Your task to perform on an android device: empty trash in google photos Image 0: 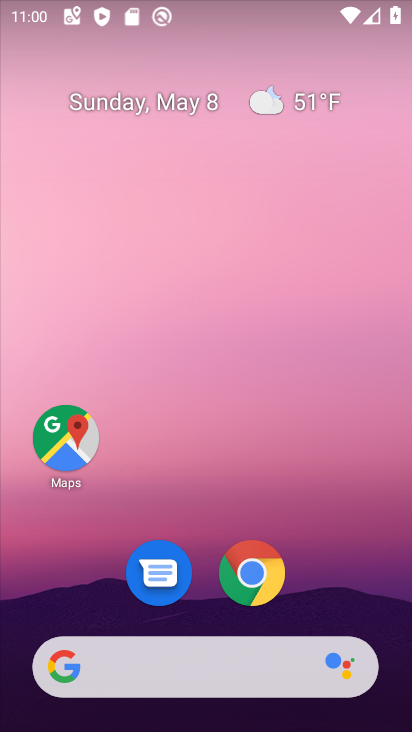
Step 0: press home button
Your task to perform on an android device: empty trash in google photos Image 1: 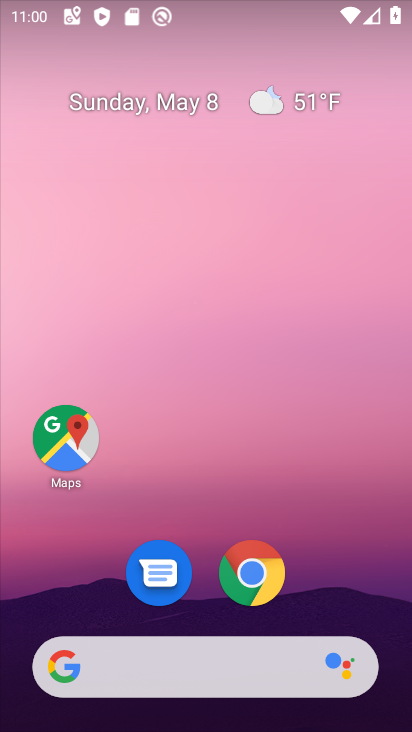
Step 1: drag from (214, 632) to (255, 41)
Your task to perform on an android device: empty trash in google photos Image 2: 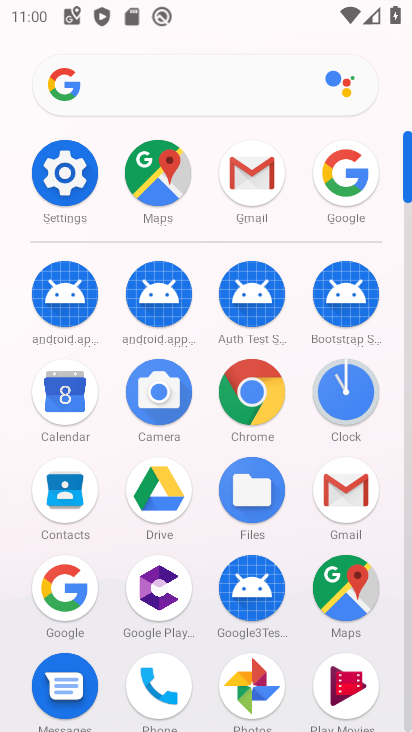
Step 2: click (253, 696)
Your task to perform on an android device: empty trash in google photos Image 3: 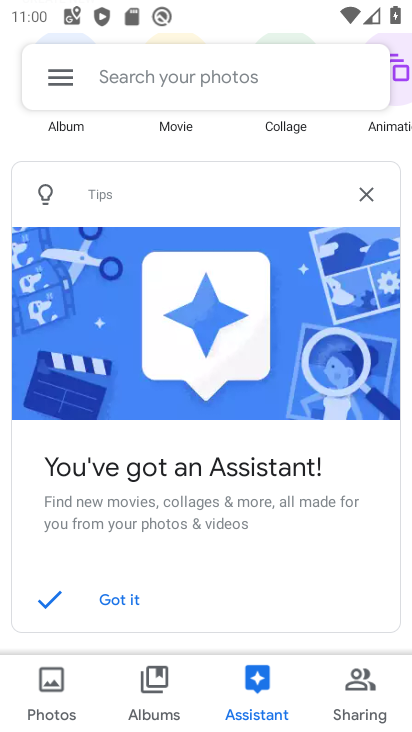
Step 3: click (58, 73)
Your task to perform on an android device: empty trash in google photos Image 4: 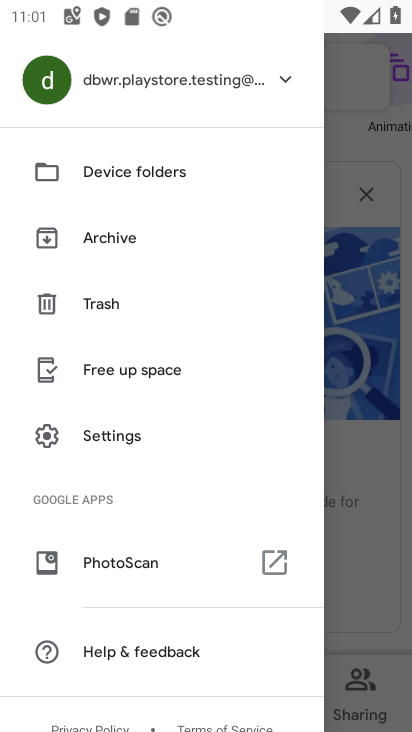
Step 4: click (94, 310)
Your task to perform on an android device: empty trash in google photos Image 5: 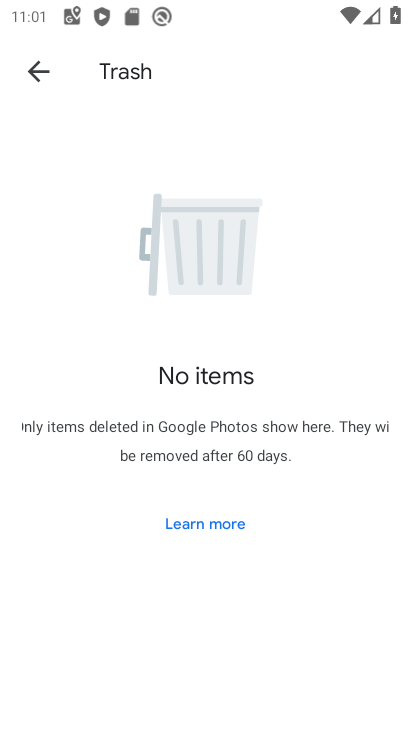
Step 5: task complete